Your task to perform on an android device: Search for Mexican restaurants on Maps Image 0: 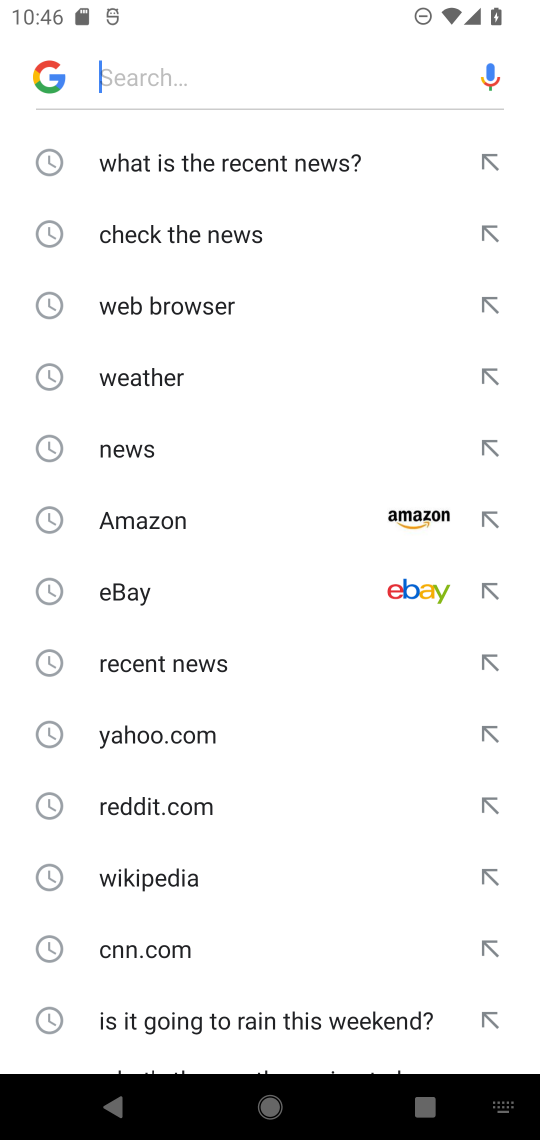
Step 0: press home button
Your task to perform on an android device: Search for Mexican restaurants on Maps Image 1: 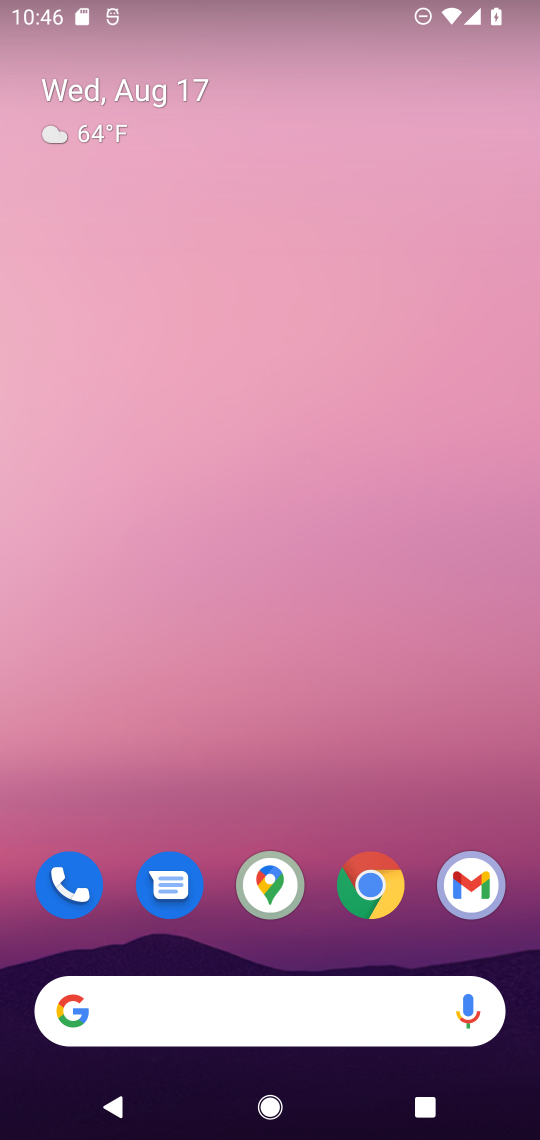
Step 1: click (269, 883)
Your task to perform on an android device: Search for Mexican restaurants on Maps Image 2: 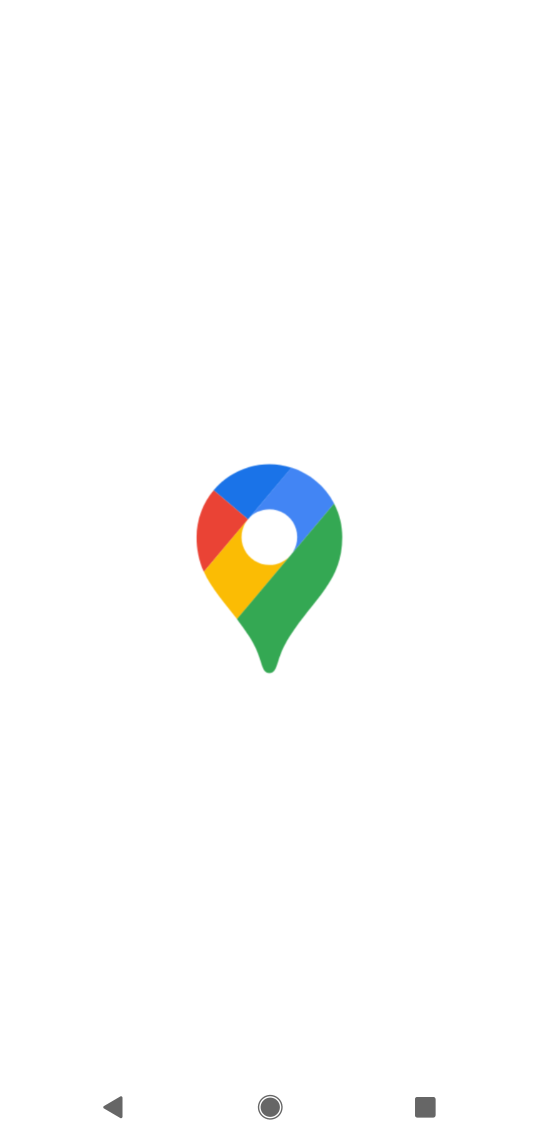
Step 2: click (266, 540)
Your task to perform on an android device: Search for Mexican restaurants on Maps Image 3: 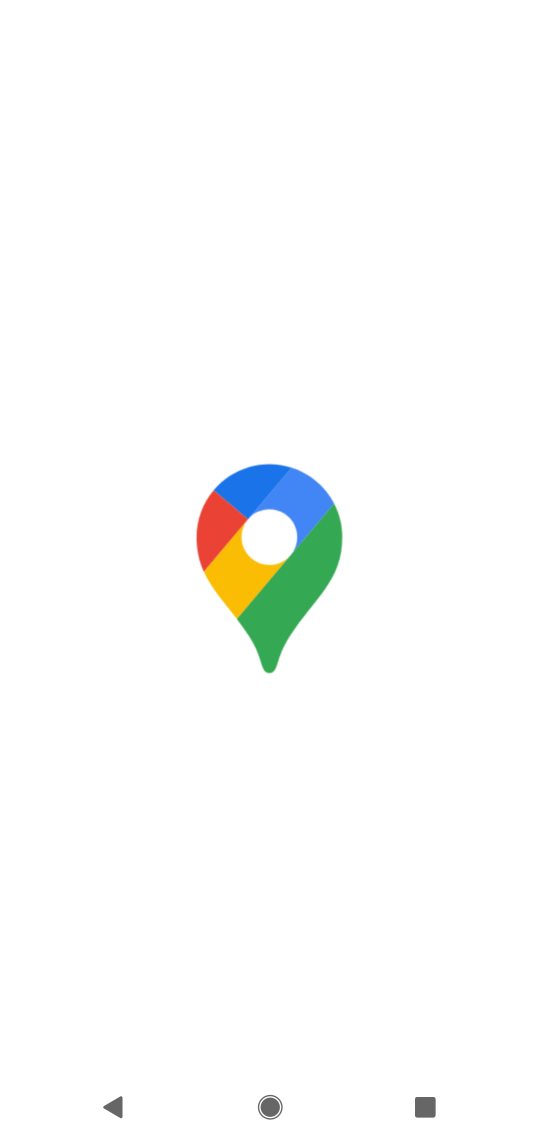
Step 3: task complete